Your task to perform on an android device: open app "YouTube Kids" (install if not already installed) Image 0: 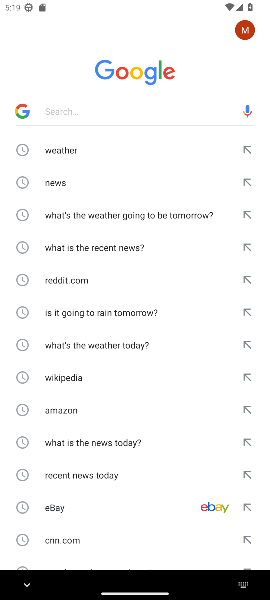
Step 0: press home button
Your task to perform on an android device: open app "YouTube Kids" (install if not already installed) Image 1: 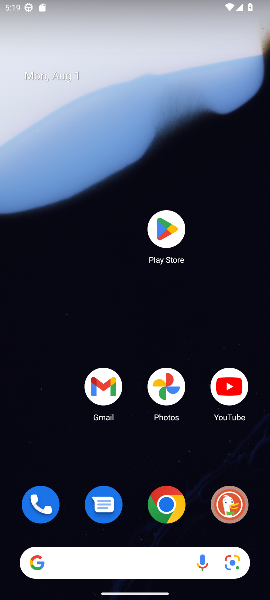
Step 1: click (159, 231)
Your task to perform on an android device: open app "YouTube Kids" (install if not already installed) Image 2: 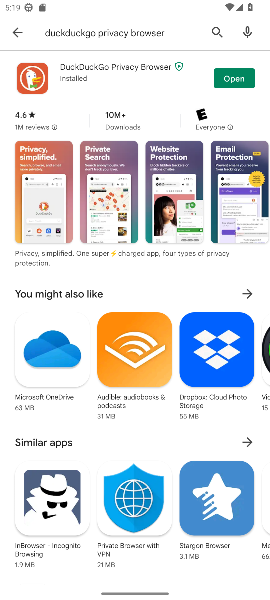
Step 2: click (217, 31)
Your task to perform on an android device: open app "YouTube Kids" (install if not already installed) Image 3: 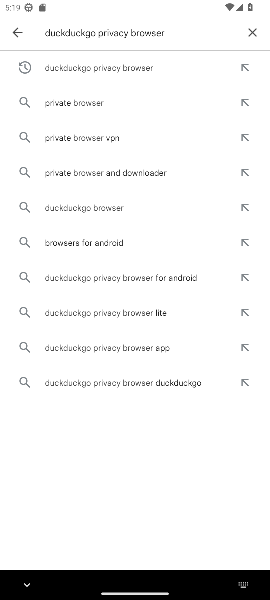
Step 3: click (248, 30)
Your task to perform on an android device: open app "YouTube Kids" (install if not already installed) Image 4: 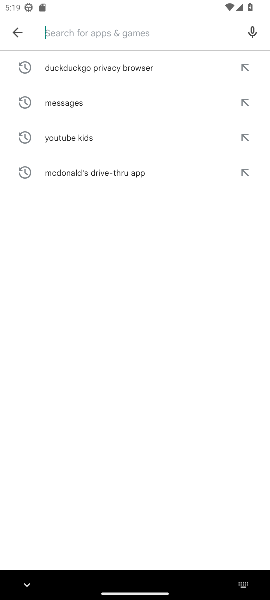
Step 4: type "YouTube Kids"
Your task to perform on an android device: open app "YouTube Kids" (install if not already installed) Image 5: 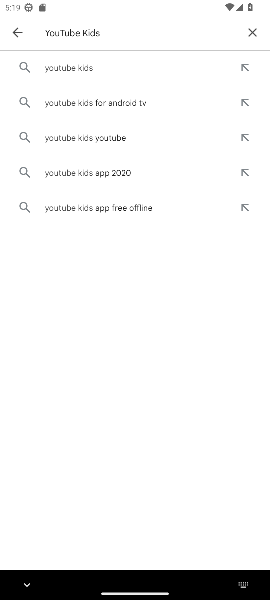
Step 5: click (86, 69)
Your task to perform on an android device: open app "YouTube Kids" (install if not already installed) Image 6: 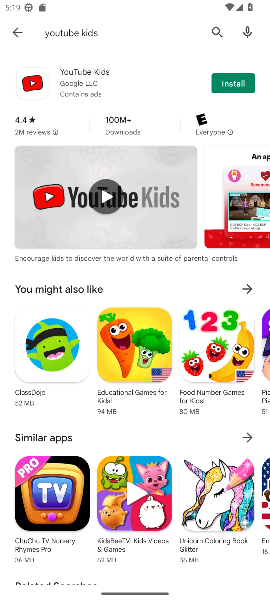
Step 6: click (228, 84)
Your task to perform on an android device: open app "YouTube Kids" (install if not already installed) Image 7: 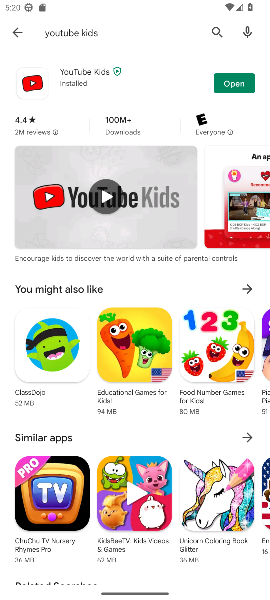
Step 7: click (239, 84)
Your task to perform on an android device: open app "YouTube Kids" (install if not already installed) Image 8: 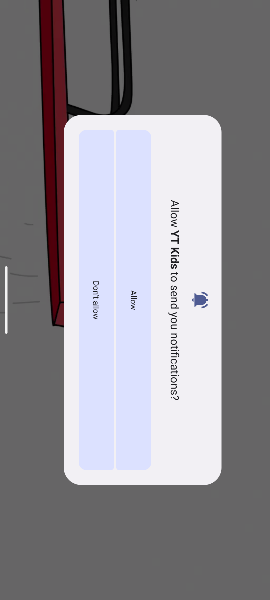
Step 8: task complete